Your task to perform on an android device: Search for hotels in Denver Image 0: 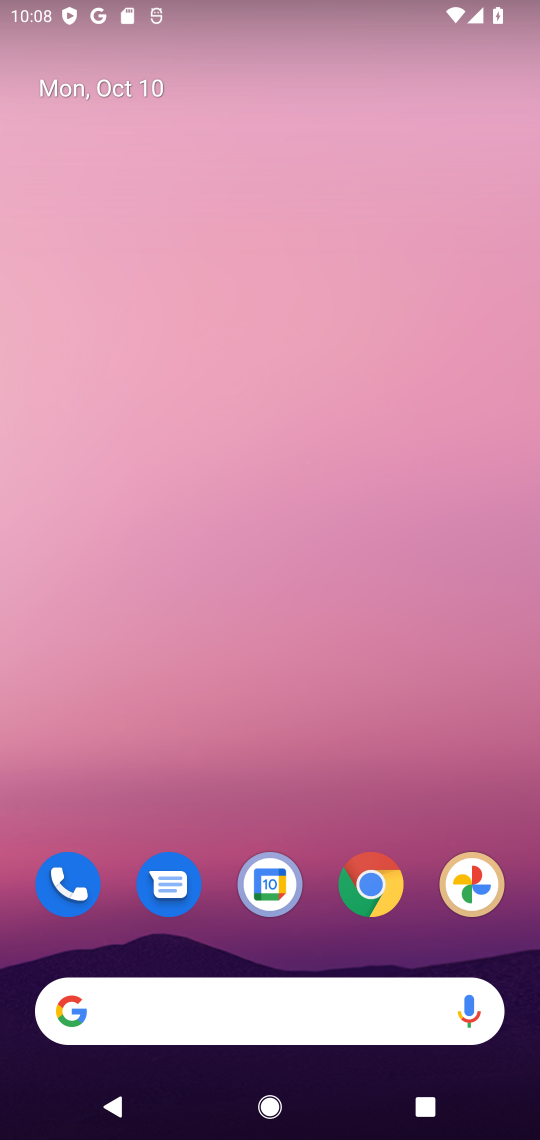
Step 0: drag from (304, 976) to (288, 67)
Your task to perform on an android device: Search for hotels in Denver Image 1: 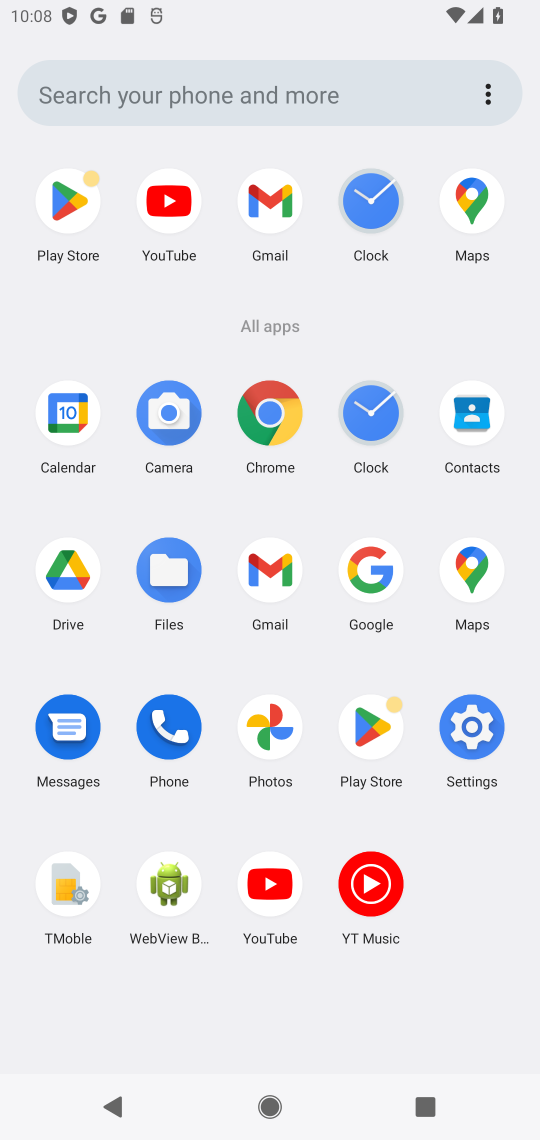
Step 1: click (386, 561)
Your task to perform on an android device: Search for hotels in Denver Image 2: 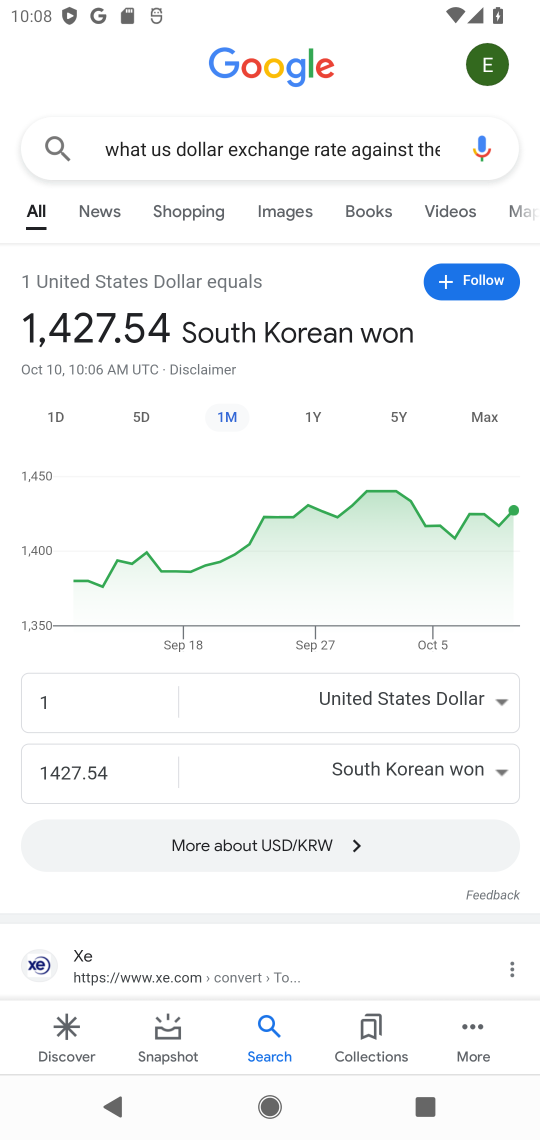
Step 2: click (304, 151)
Your task to perform on an android device: Search for hotels in Denver Image 3: 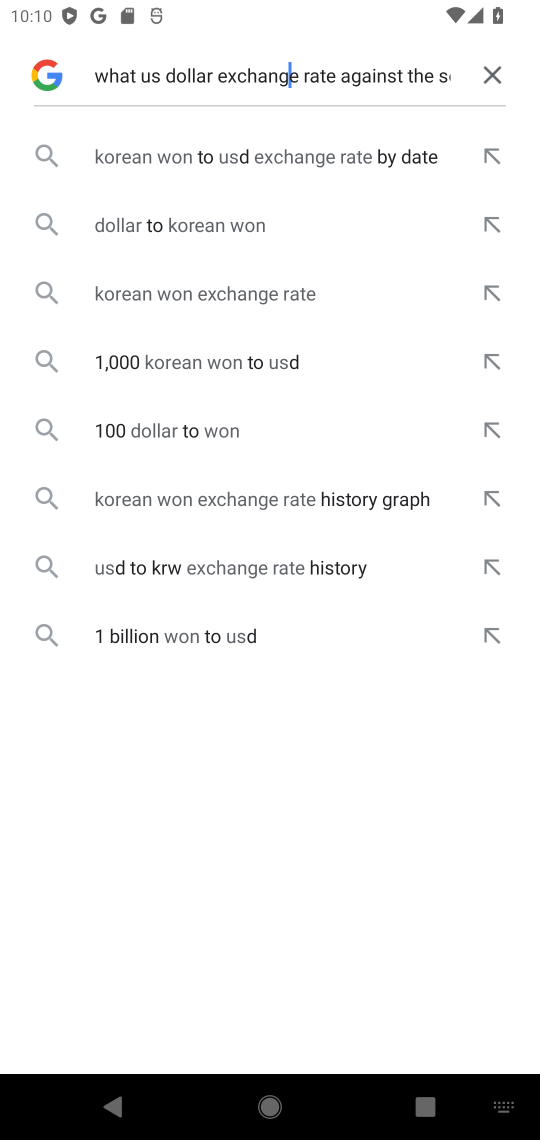
Step 3: click (489, 67)
Your task to perform on an android device: Search for hotels in Denver Image 4: 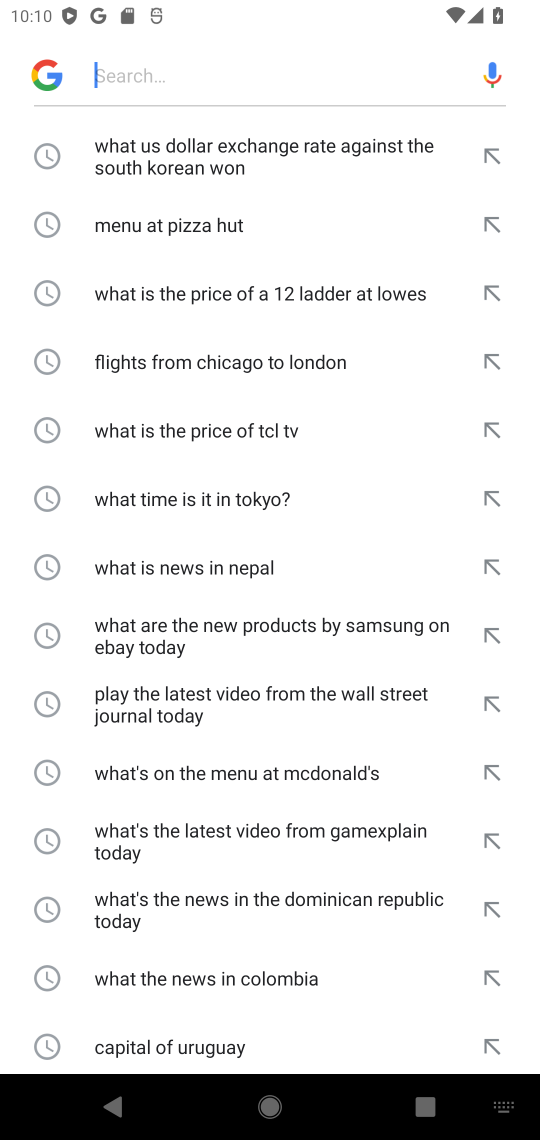
Step 4: type "hotels in Denver"
Your task to perform on an android device: Search for hotels in Denver Image 5: 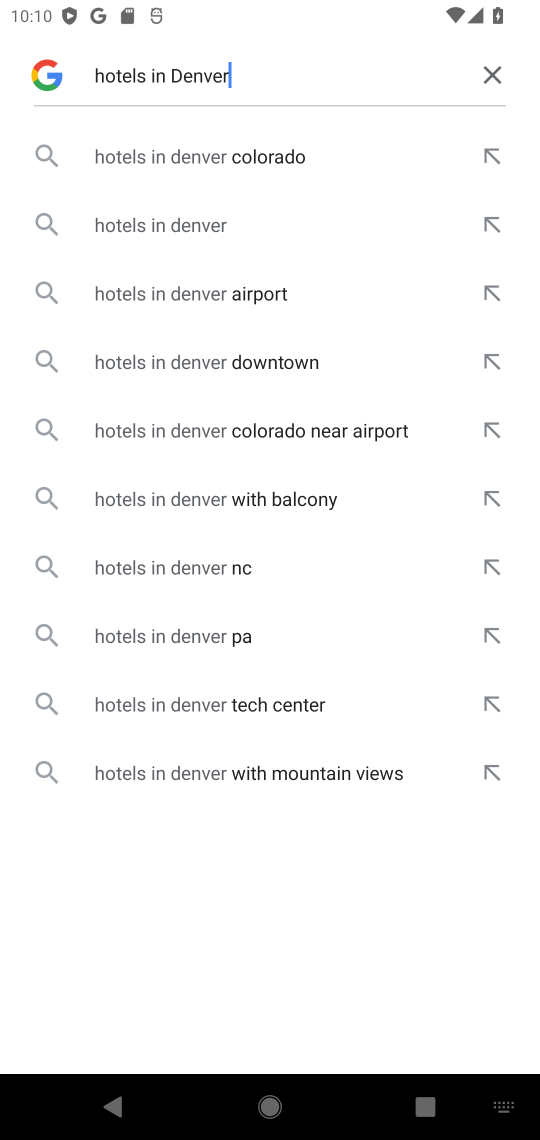
Step 5: click (195, 225)
Your task to perform on an android device: Search for hotels in Denver Image 6: 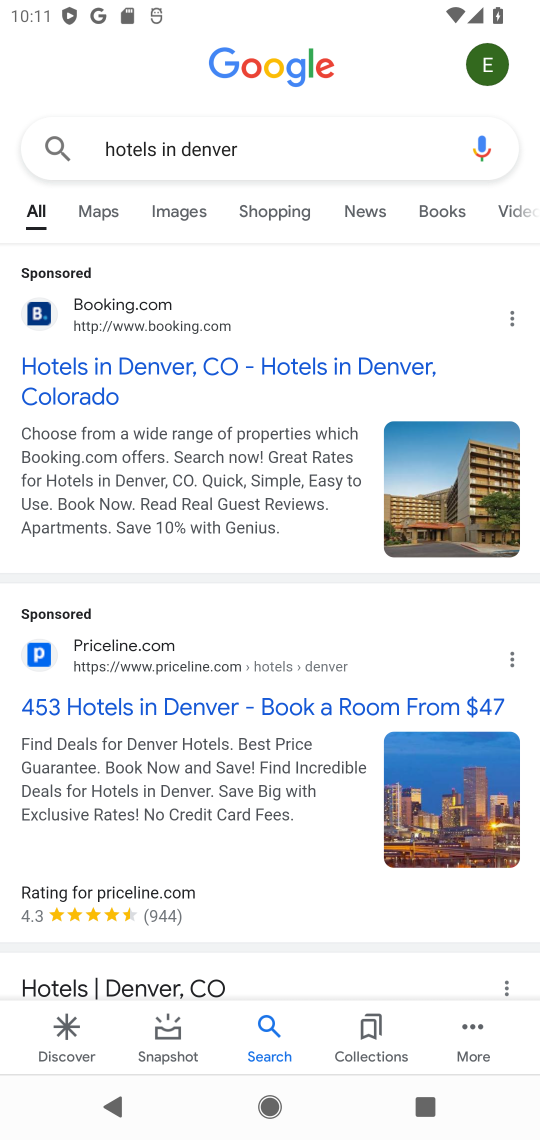
Step 6: click (211, 367)
Your task to perform on an android device: Search for hotels in Denver Image 7: 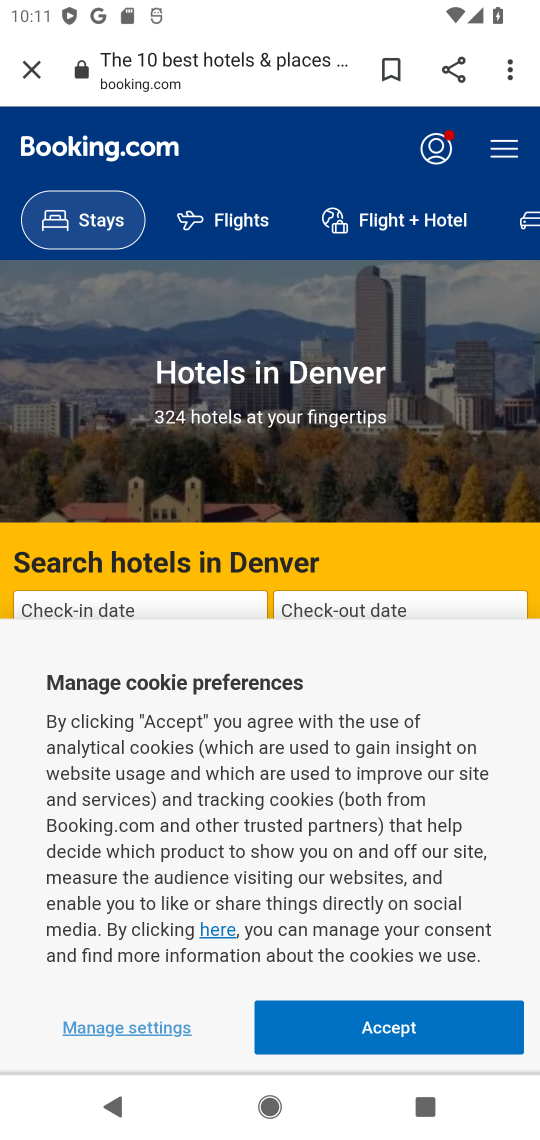
Step 7: task complete